Your task to perform on an android device: toggle javascript in the chrome app Image 0: 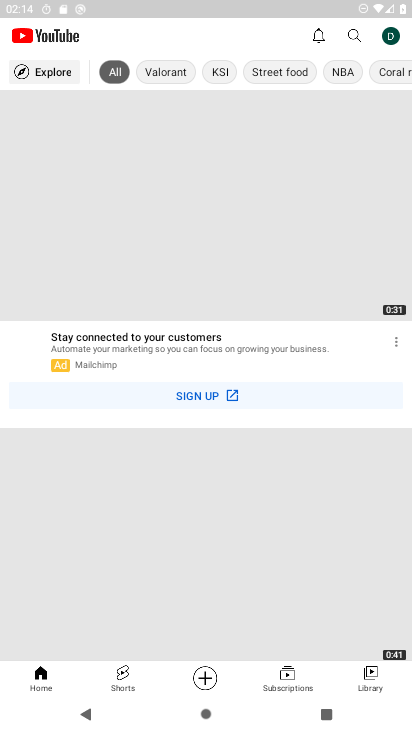
Step 0: press home button
Your task to perform on an android device: toggle javascript in the chrome app Image 1: 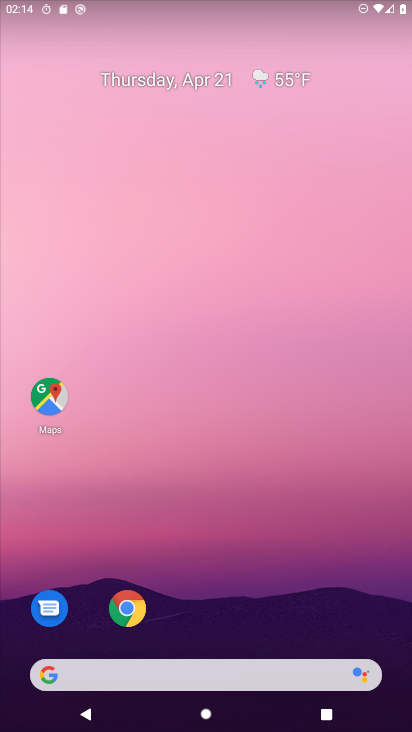
Step 1: click (117, 612)
Your task to perform on an android device: toggle javascript in the chrome app Image 2: 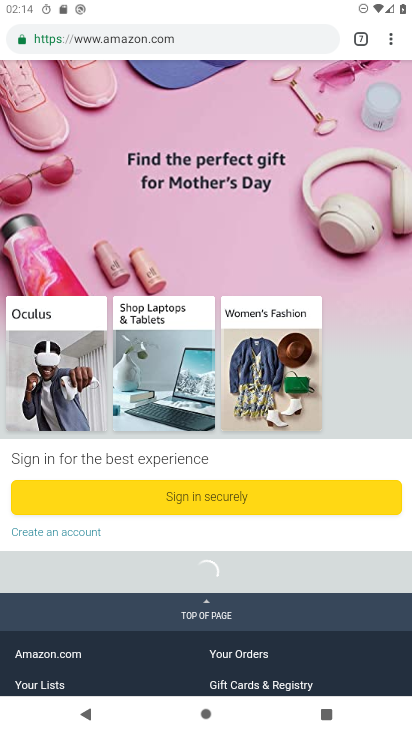
Step 2: drag from (389, 41) to (254, 510)
Your task to perform on an android device: toggle javascript in the chrome app Image 3: 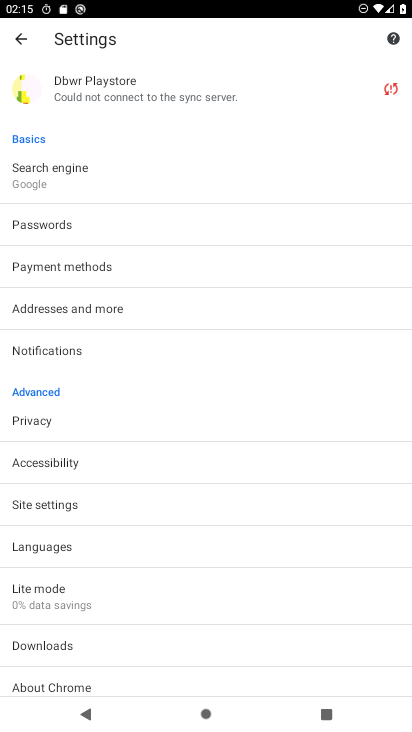
Step 3: click (44, 504)
Your task to perform on an android device: toggle javascript in the chrome app Image 4: 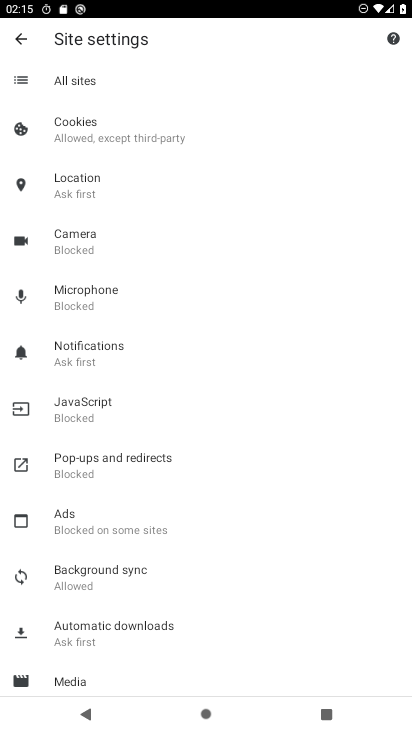
Step 4: click (106, 410)
Your task to perform on an android device: toggle javascript in the chrome app Image 5: 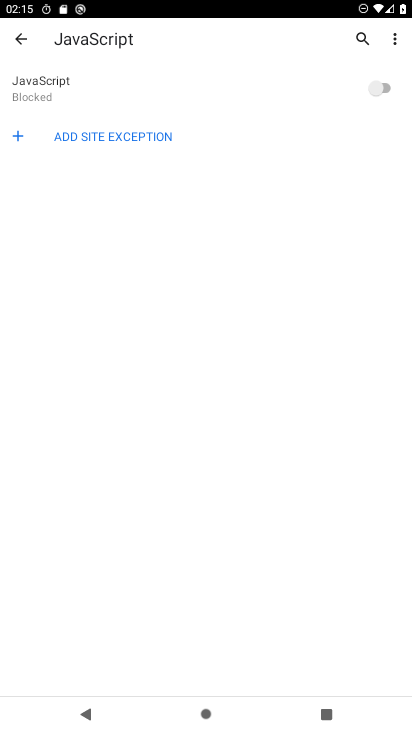
Step 5: click (376, 83)
Your task to perform on an android device: toggle javascript in the chrome app Image 6: 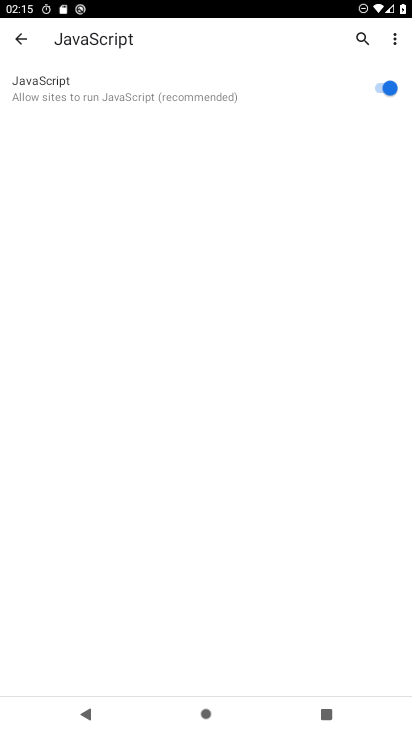
Step 6: task complete